Your task to perform on an android device: create a new album in the google photos Image 0: 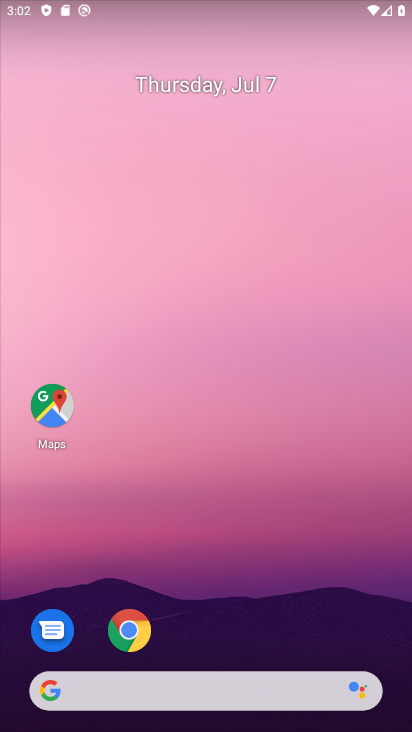
Step 0: drag from (284, 617) to (305, 64)
Your task to perform on an android device: create a new album in the google photos Image 1: 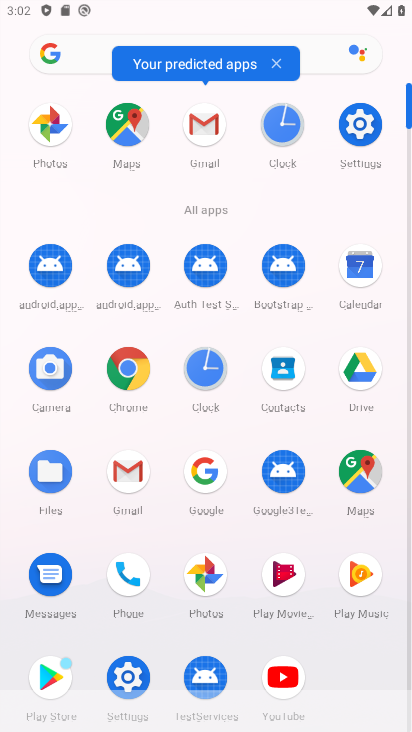
Step 1: click (217, 566)
Your task to perform on an android device: create a new album in the google photos Image 2: 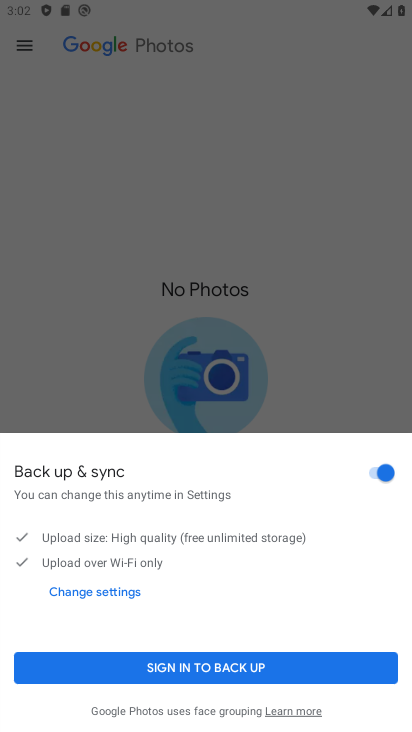
Step 2: click (193, 666)
Your task to perform on an android device: create a new album in the google photos Image 3: 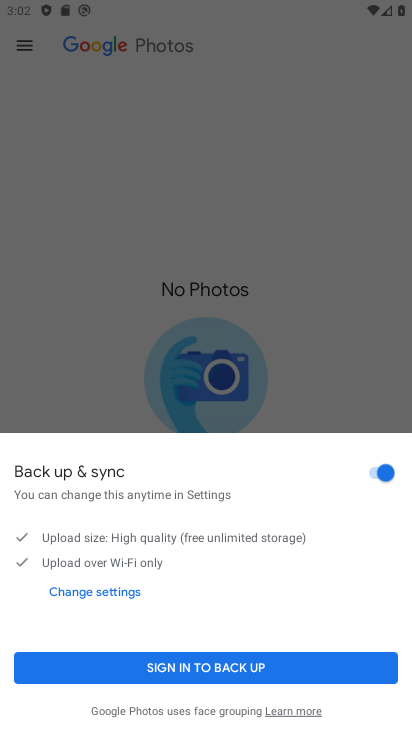
Step 3: click (193, 666)
Your task to perform on an android device: create a new album in the google photos Image 4: 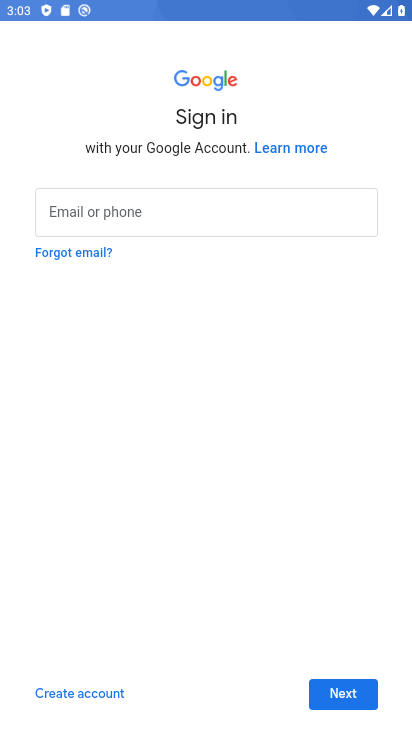
Step 4: task complete